Your task to perform on an android device: Open Reddit.com Image 0: 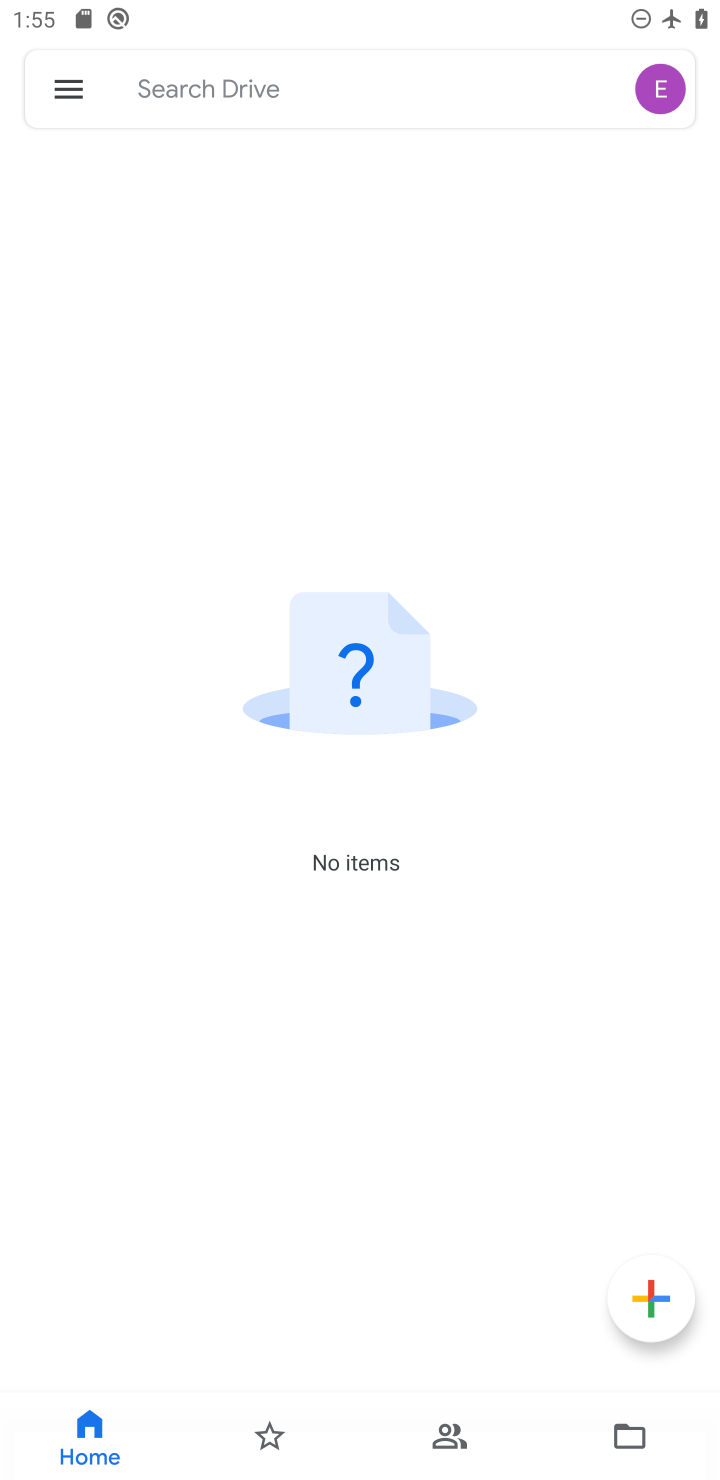
Step 0: press home button
Your task to perform on an android device: Open Reddit.com Image 1: 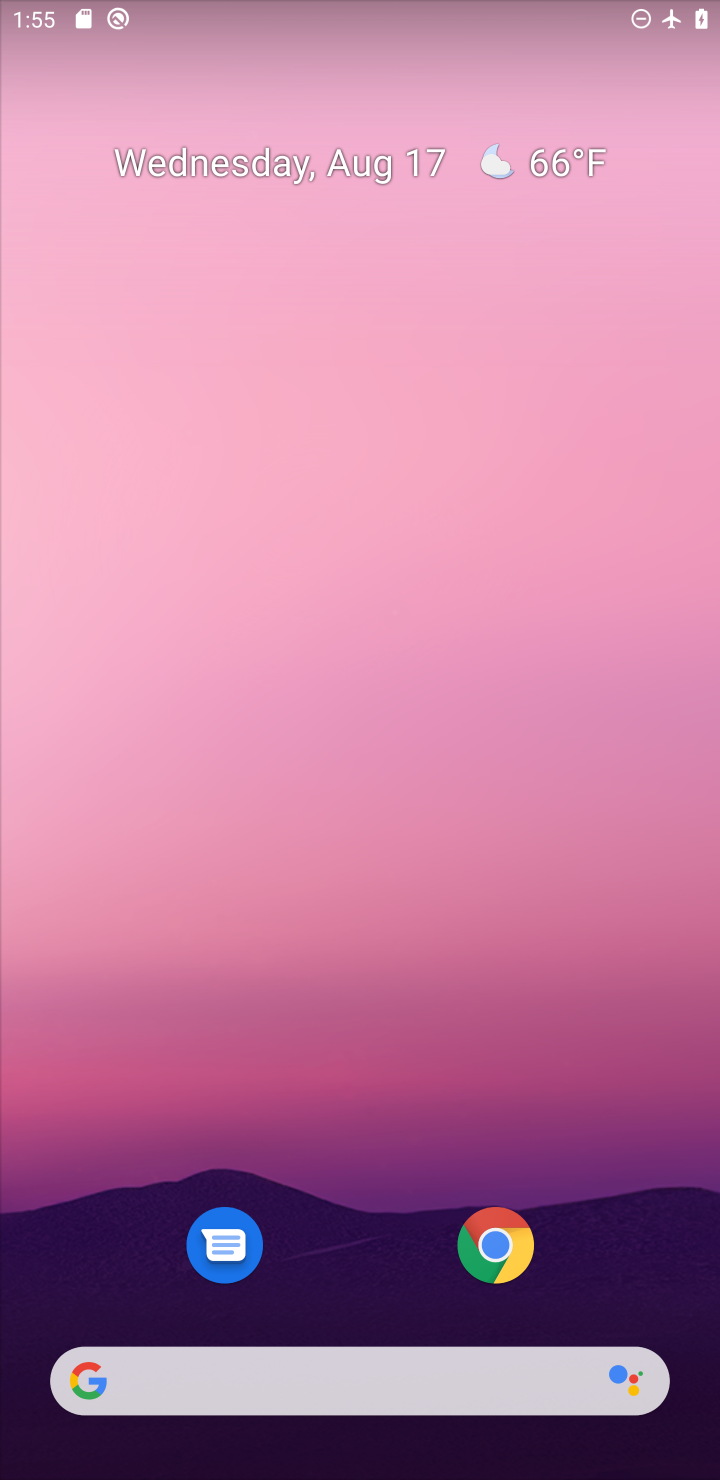
Step 1: click (485, 1247)
Your task to perform on an android device: Open Reddit.com Image 2: 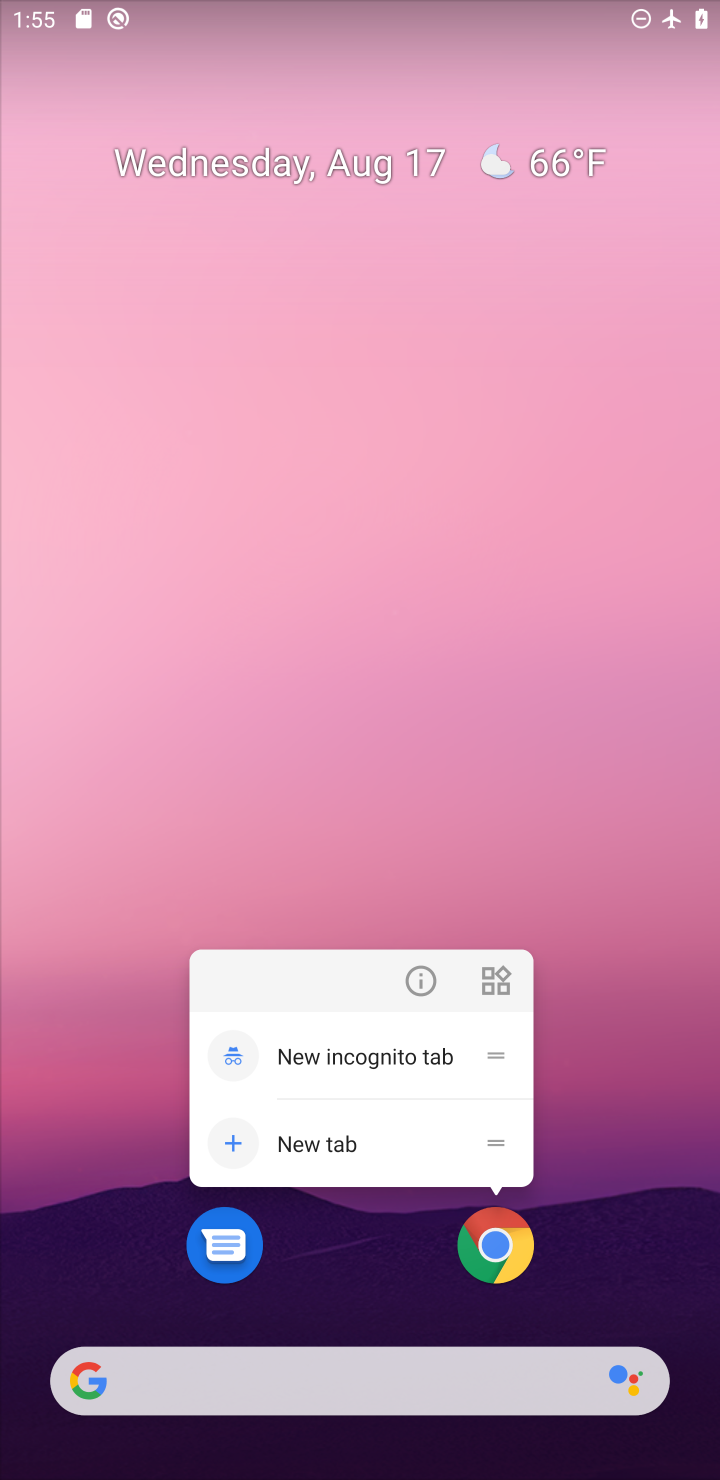
Step 2: click (485, 1247)
Your task to perform on an android device: Open Reddit.com Image 3: 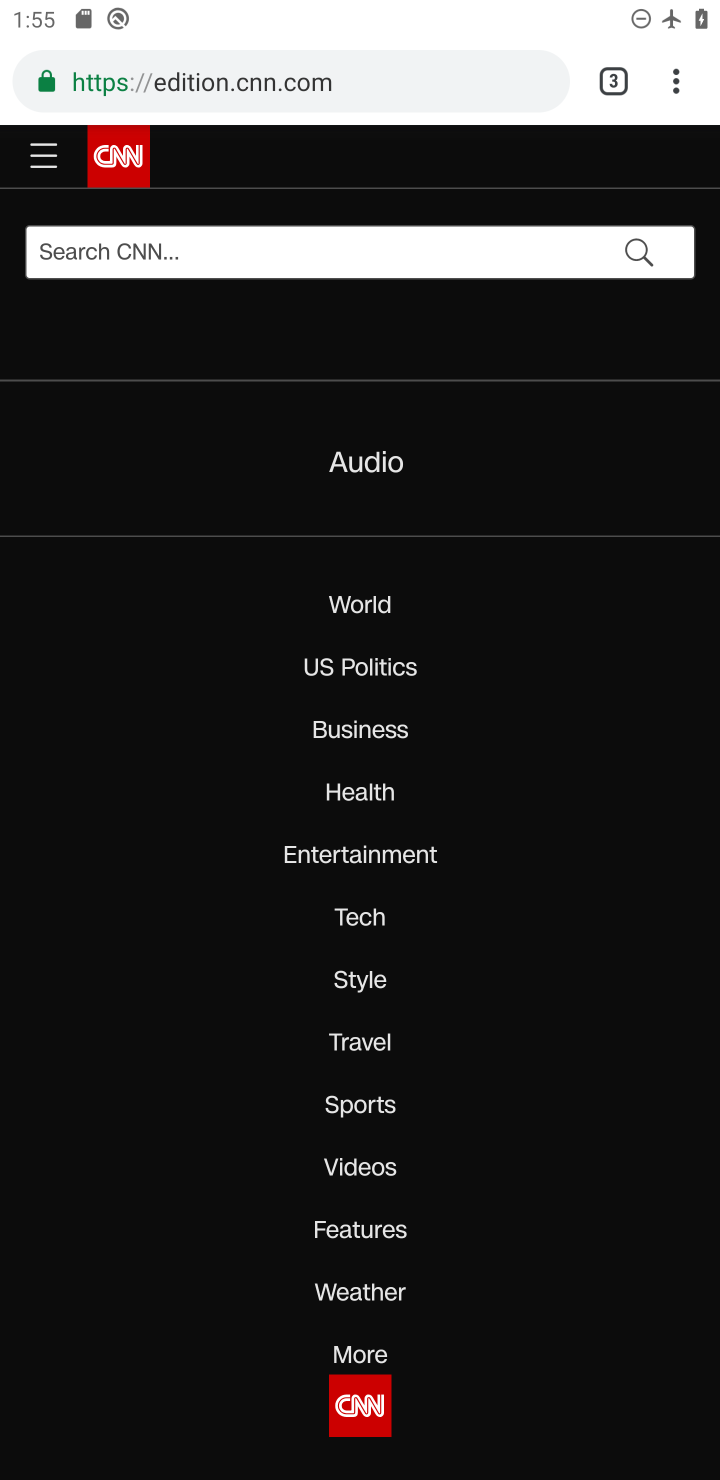
Step 3: click (676, 82)
Your task to perform on an android device: Open Reddit.com Image 4: 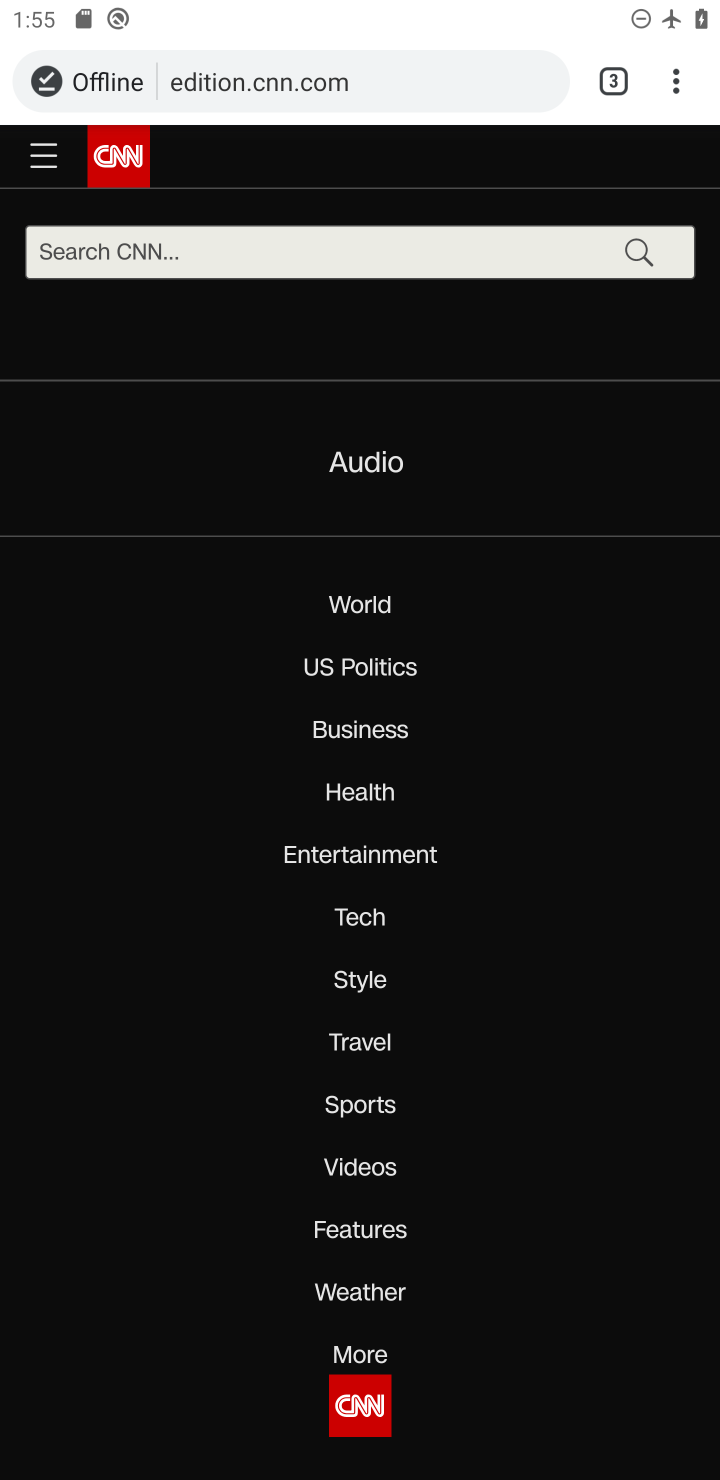
Step 4: click (657, 99)
Your task to perform on an android device: Open Reddit.com Image 5: 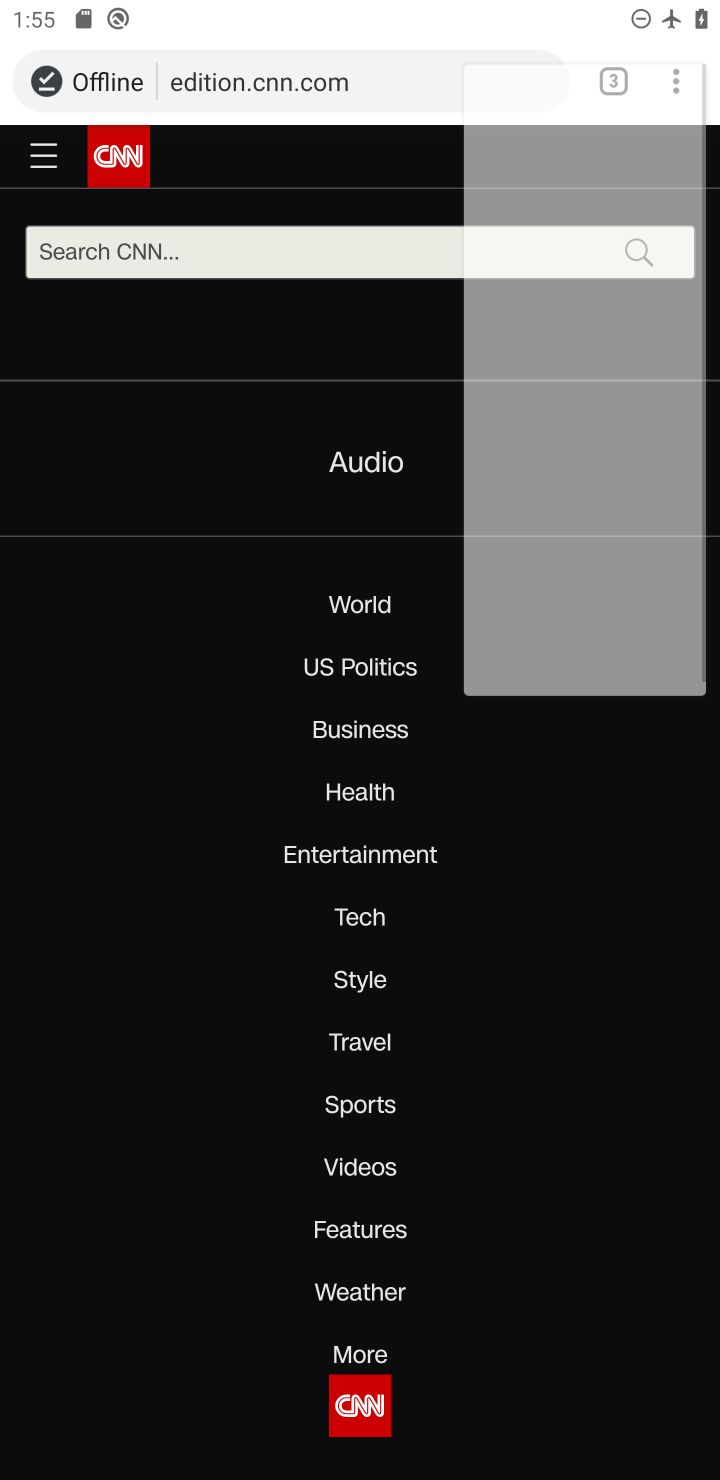
Step 5: drag from (675, 79) to (397, 251)
Your task to perform on an android device: Open Reddit.com Image 6: 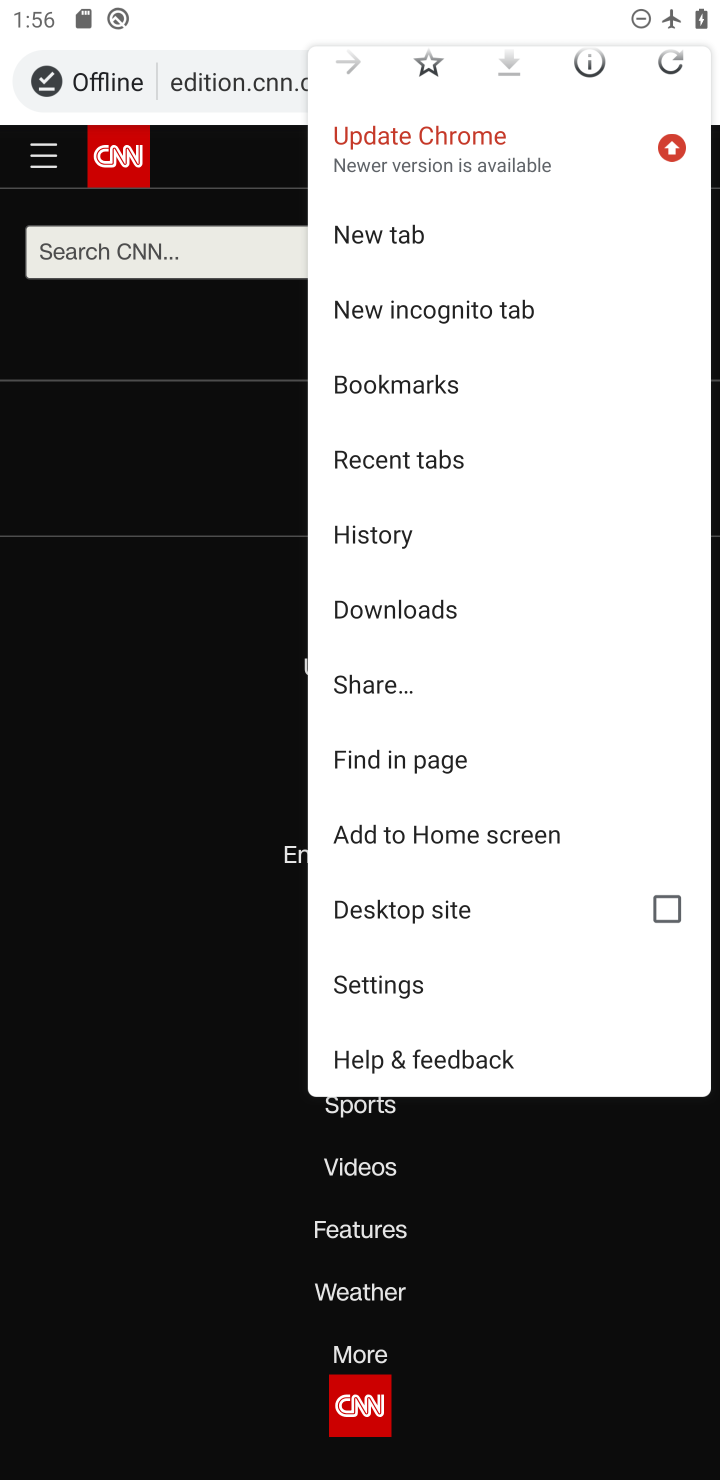
Step 6: click (374, 233)
Your task to perform on an android device: Open Reddit.com Image 7: 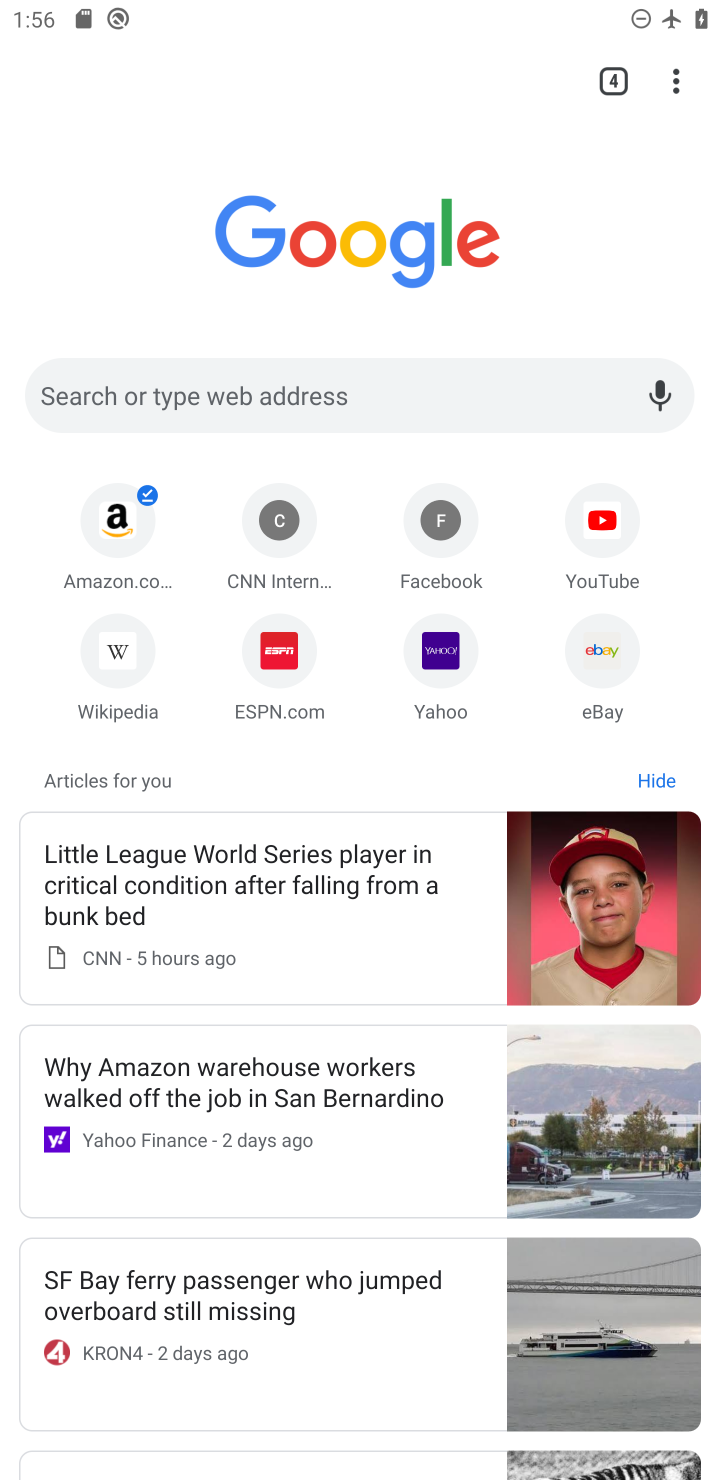
Step 7: click (306, 398)
Your task to perform on an android device: Open Reddit.com Image 8: 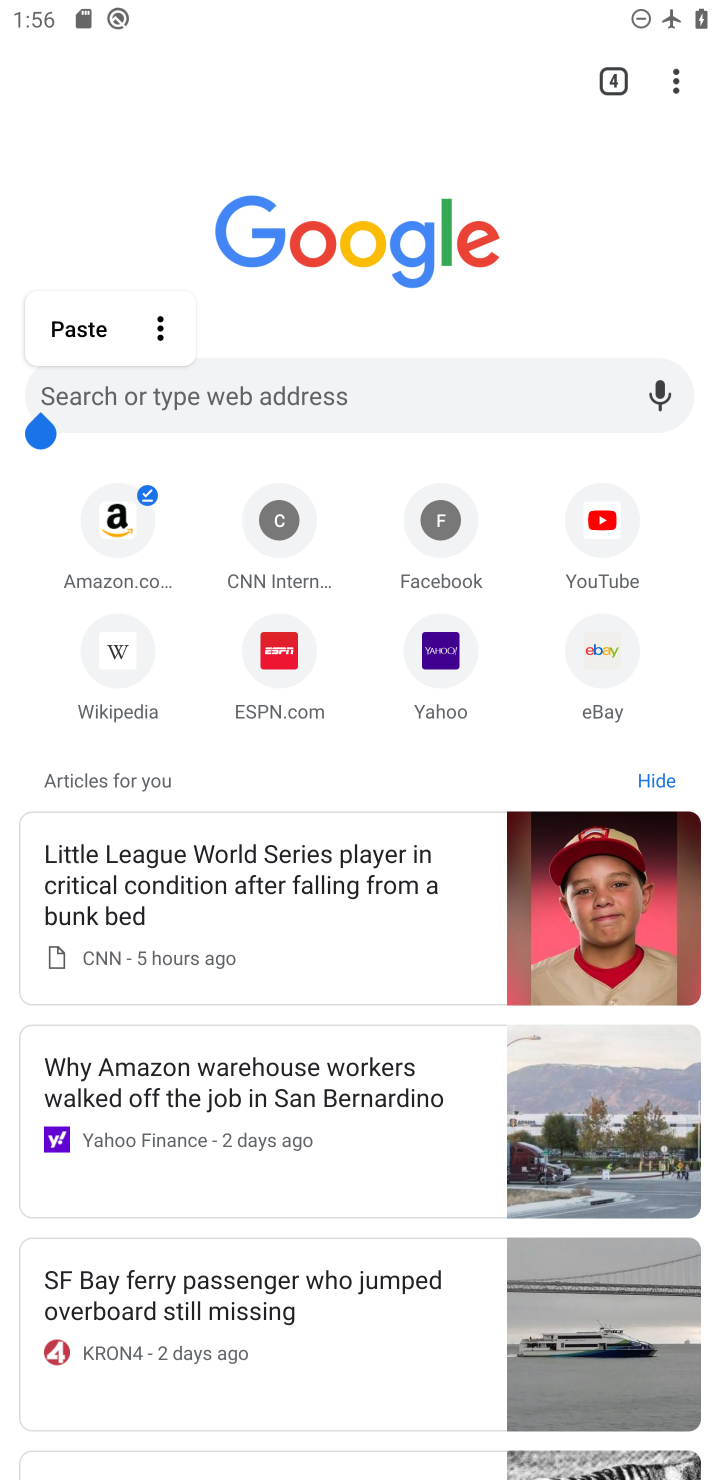
Step 8: click (313, 393)
Your task to perform on an android device: Open Reddit.com Image 9: 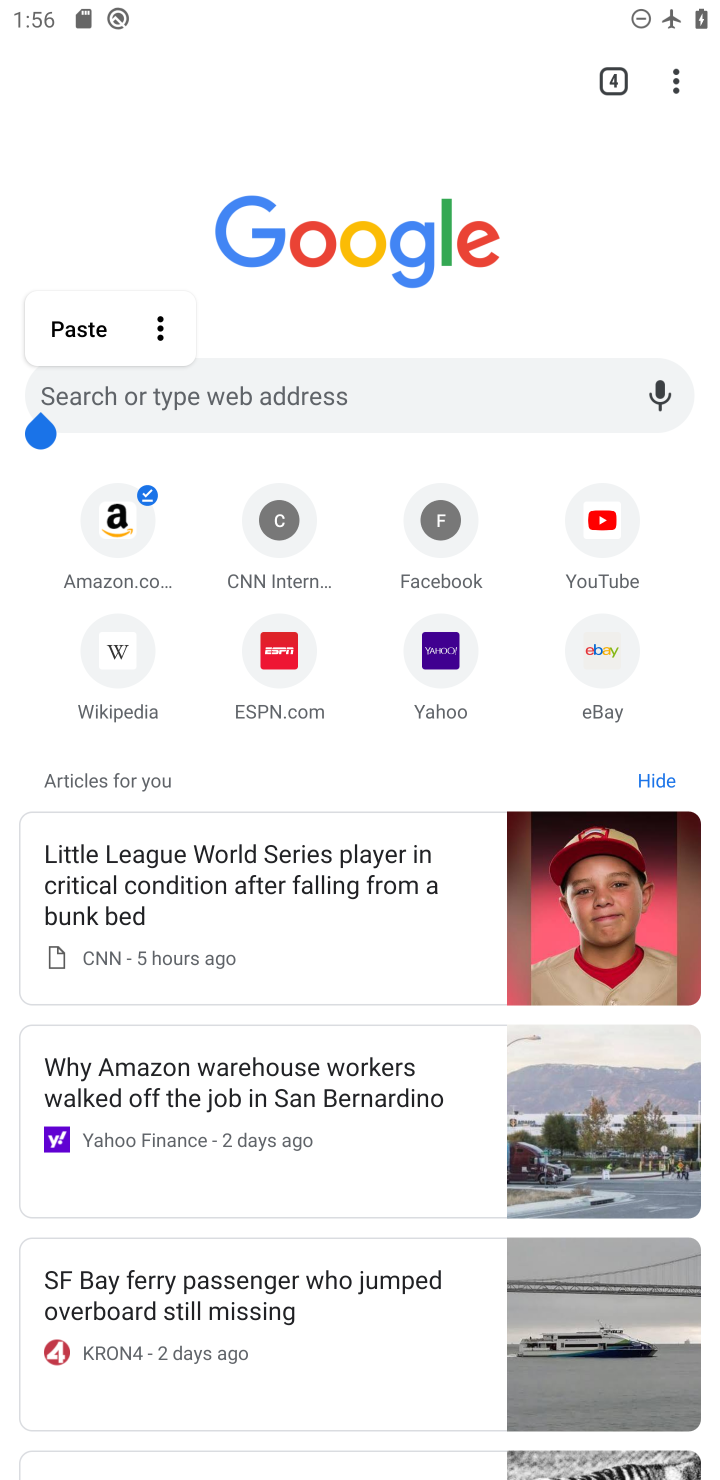
Step 9: click (367, 405)
Your task to perform on an android device: Open Reddit.com Image 10: 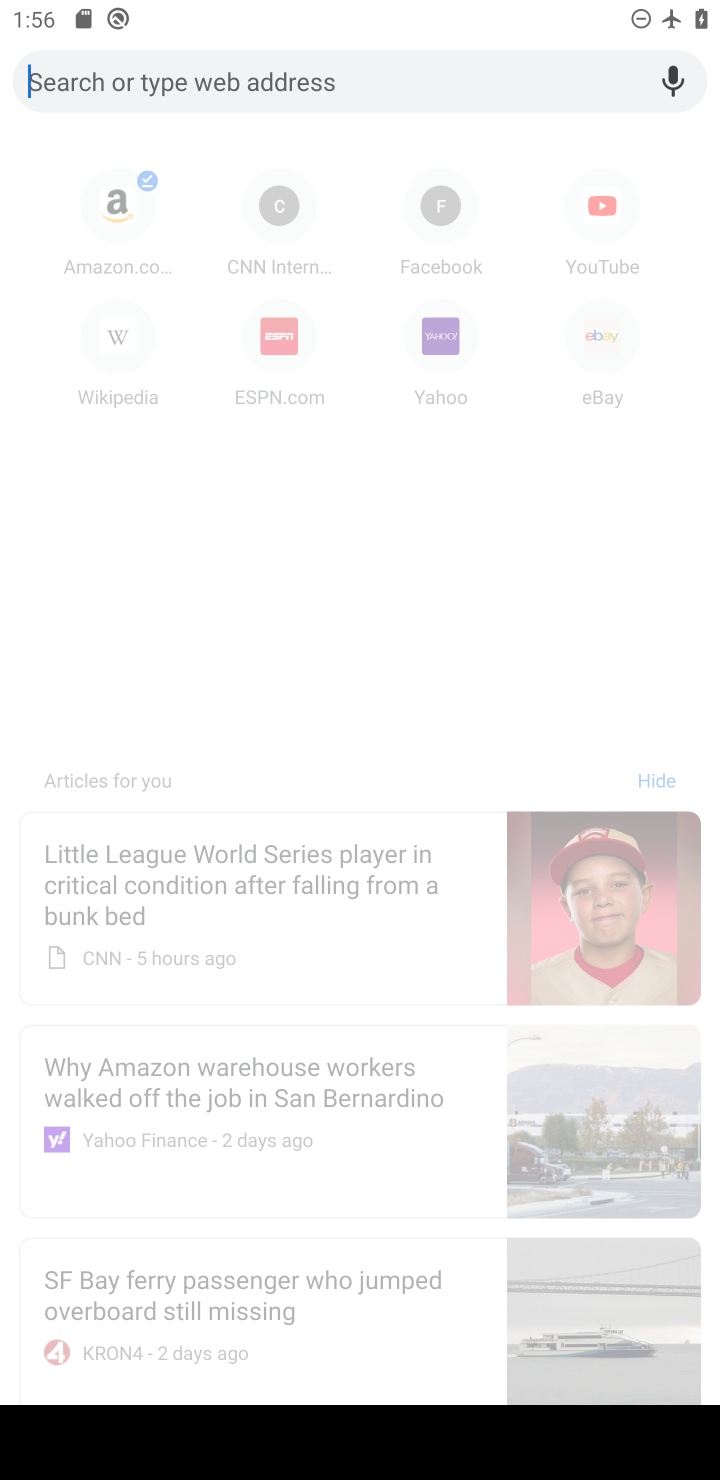
Step 10: type "Reddit.com"
Your task to perform on an android device: Open Reddit.com Image 11: 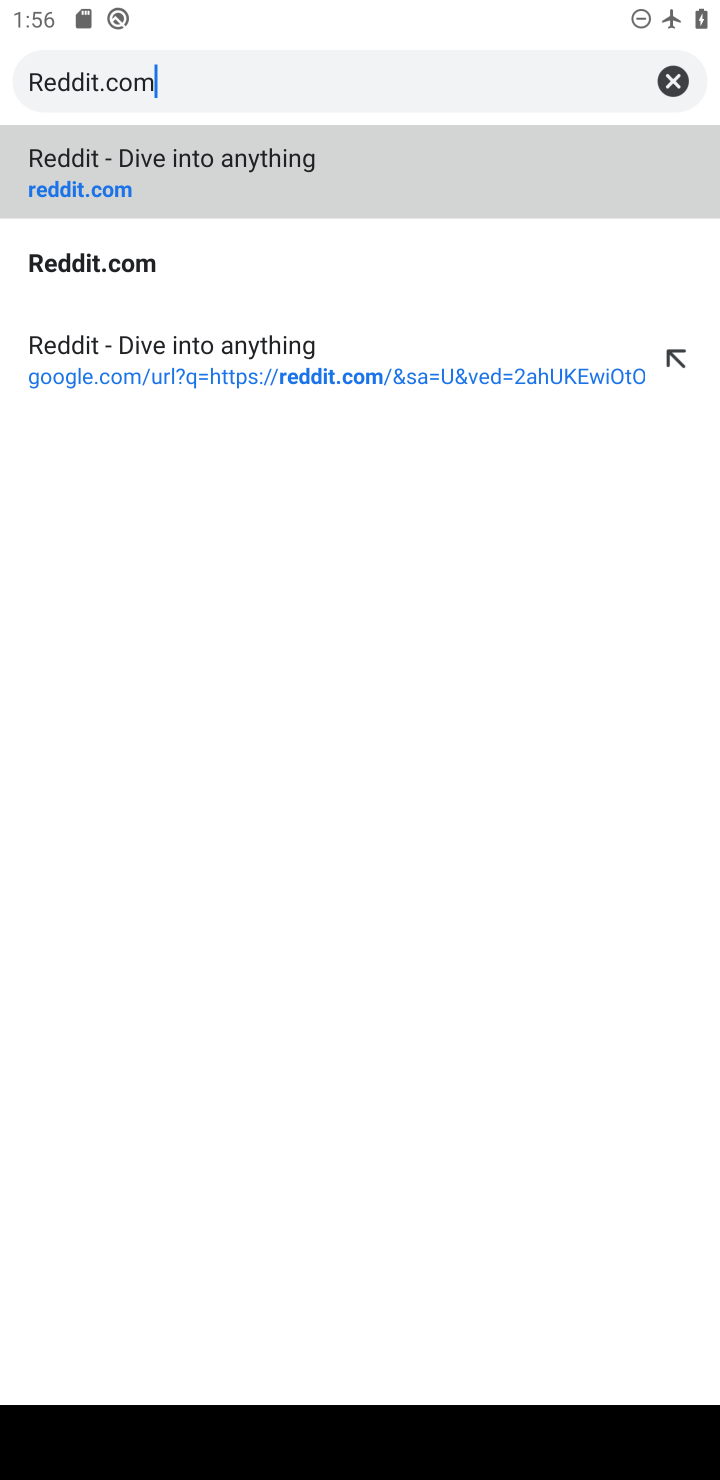
Step 11: click (113, 186)
Your task to perform on an android device: Open Reddit.com Image 12: 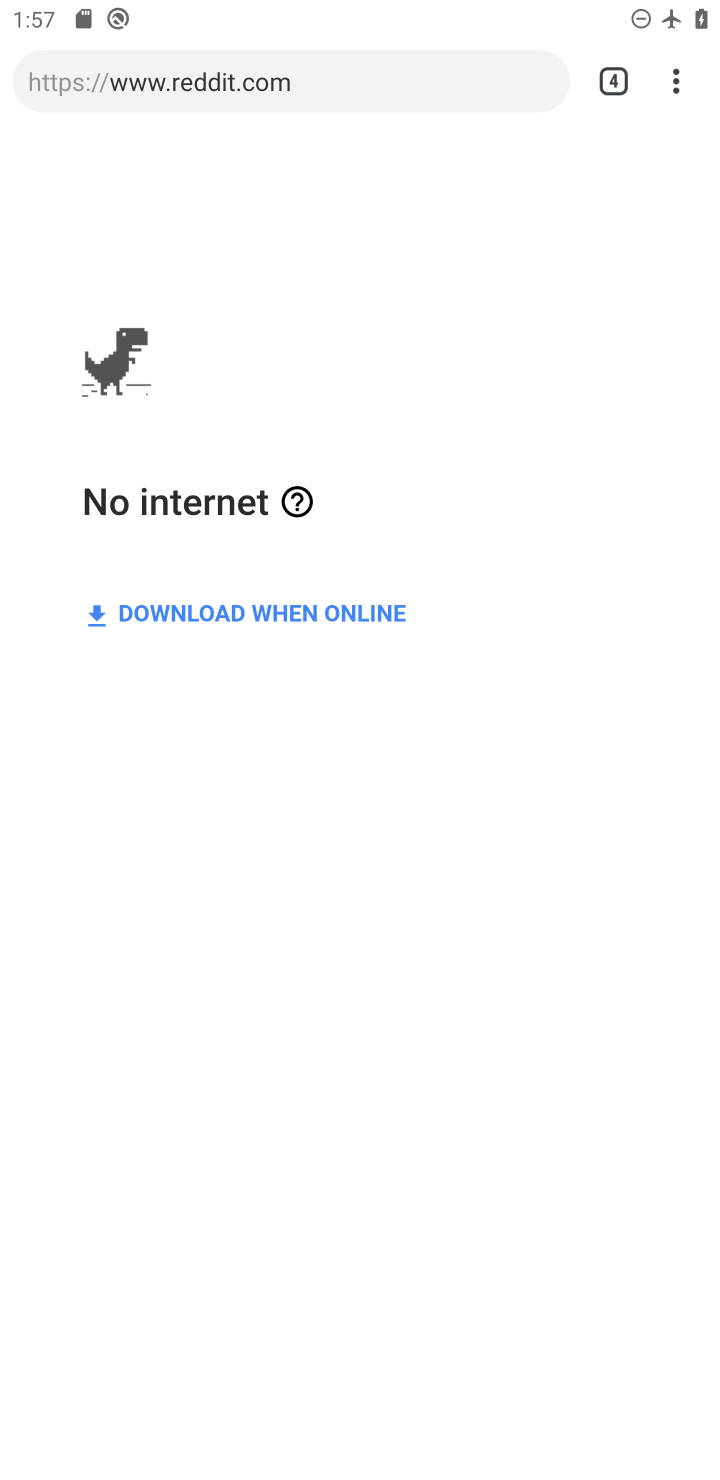
Step 12: task complete